Your task to perform on an android device: Show me popular games on the Play Store Image 0: 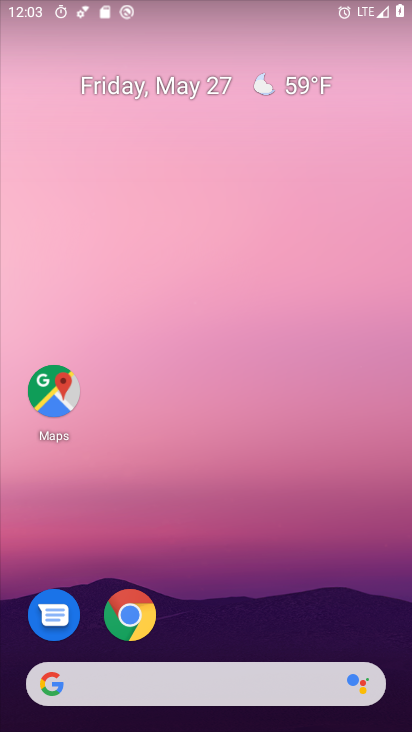
Step 0: drag from (228, 327) to (176, 88)
Your task to perform on an android device: Show me popular games on the Play Store Image 1: 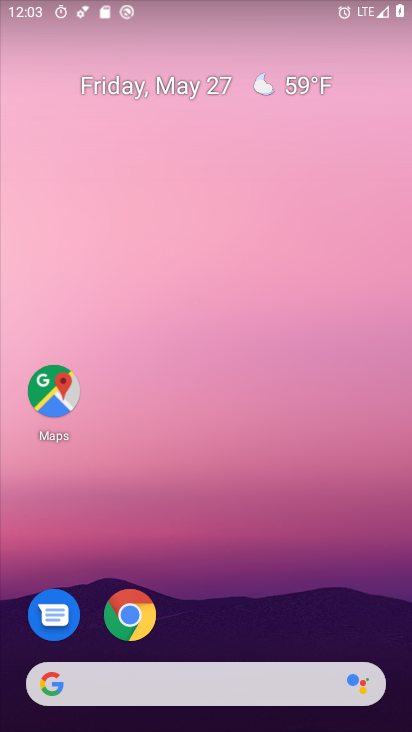
Step 1: drag from (221, 587) to (123, 22)
Your task to perform on an android device: Show me popular games on the Play Store Image 2: 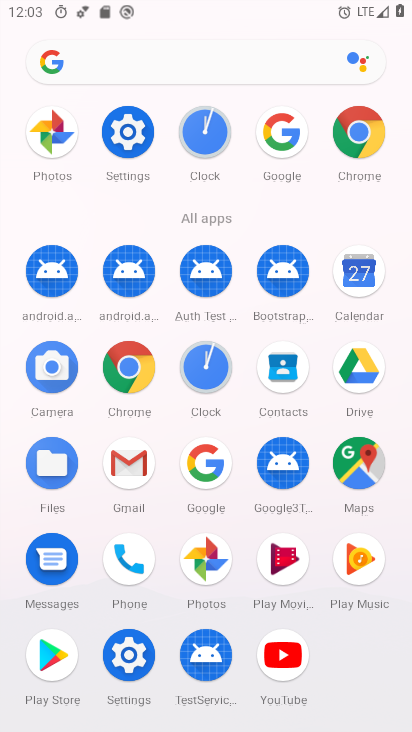
Step 2: click (50, 664)
Your task to perform on an android device: Show me popular games on the Play Store Image 3: 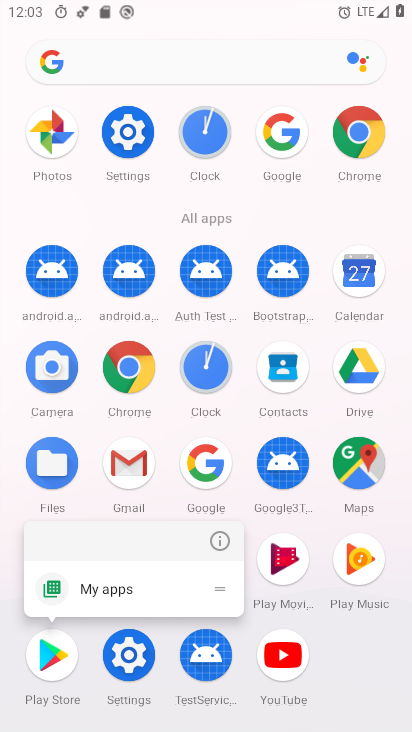
Step 3: click (41, 642)
Your task to perform on an android device: Show me popular games on the Play Store Image 4: 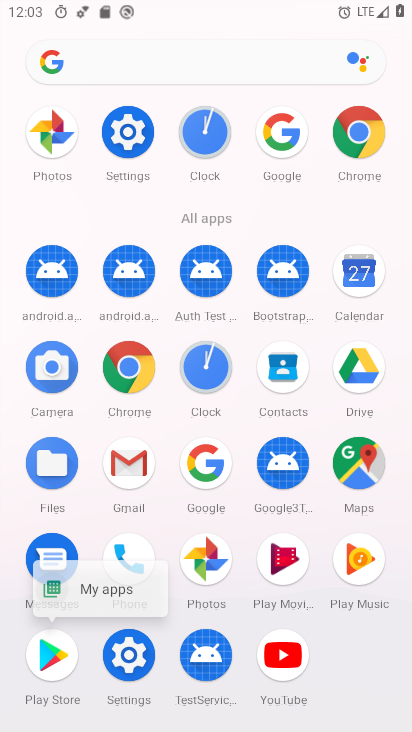
Step 4: click (42, 643)
Your task to perform on an android device: Show me popular games on the Play Store Image 5: 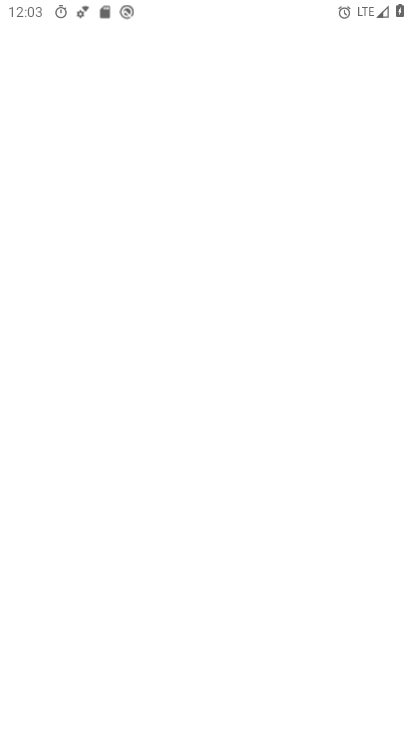
Step 5: click (42, 640)
Your task to perform on an android device: Show me popular games on the Play Store Image 6: 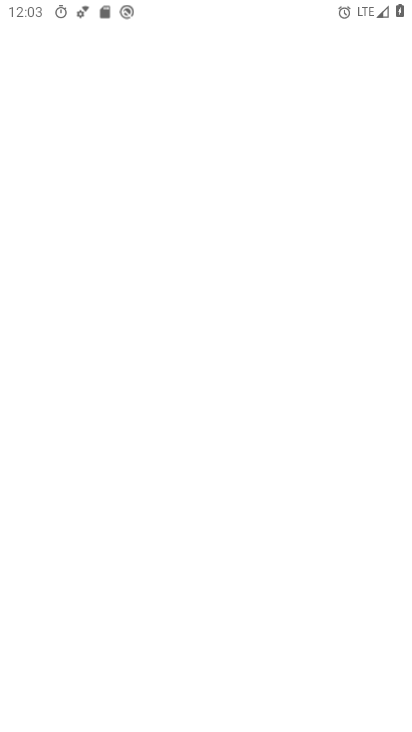
Step 6: click (42, 636)
Your task to perform on an android device: Show me popular games on the Play Store Image 7: 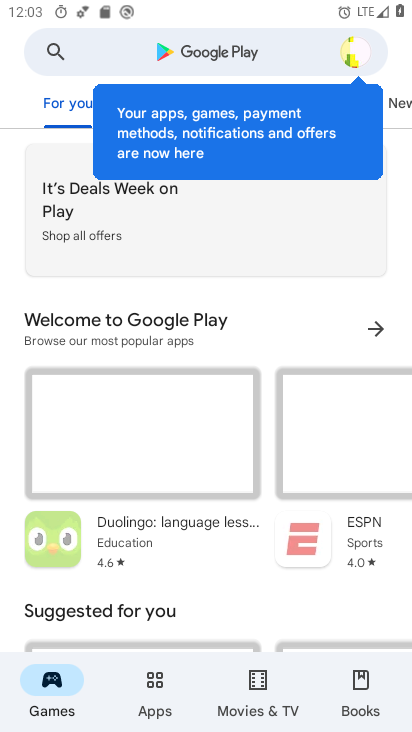
Step 7: click (125, 51)
Your task to perform on an android device: Show me popular games on the Play Store Image 8: 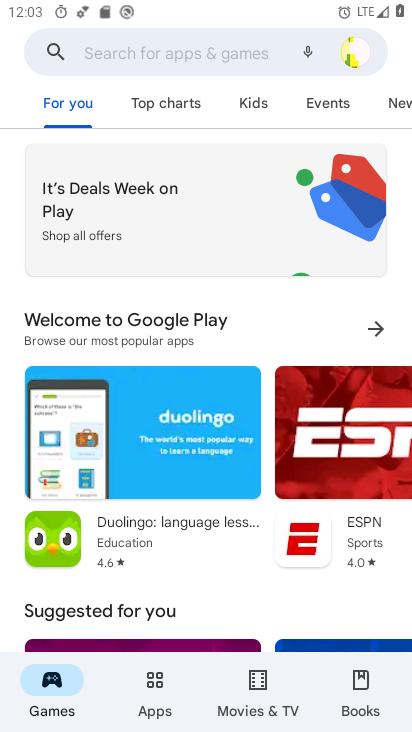
Step 8: click (125, 49)
Your task to perform on an android device: Show me popular games on the Play Store Image 9: 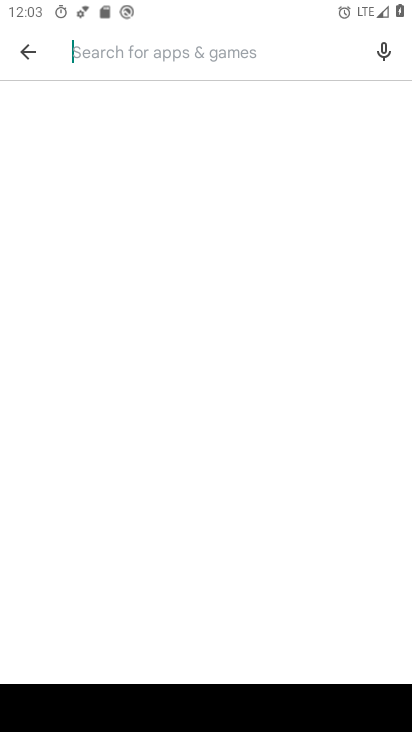
Step 9: type "popular games"
Your task to perform on an android device: Show me popular games on the Play Store Image 10: 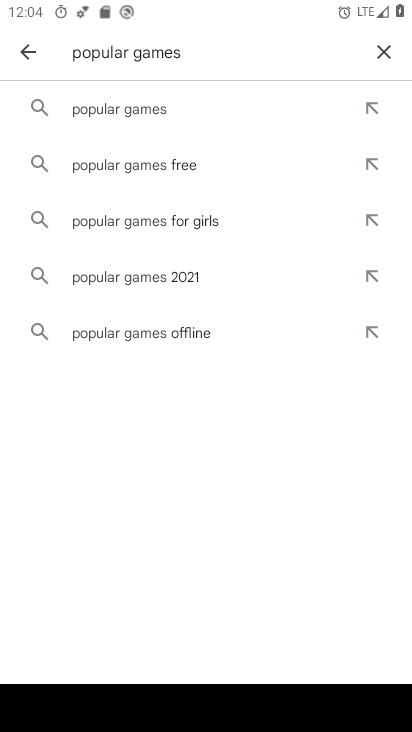
Step 10: click (129, 95)
Your task to perform on an android device: Show me popular games on the Play Store Image 11: 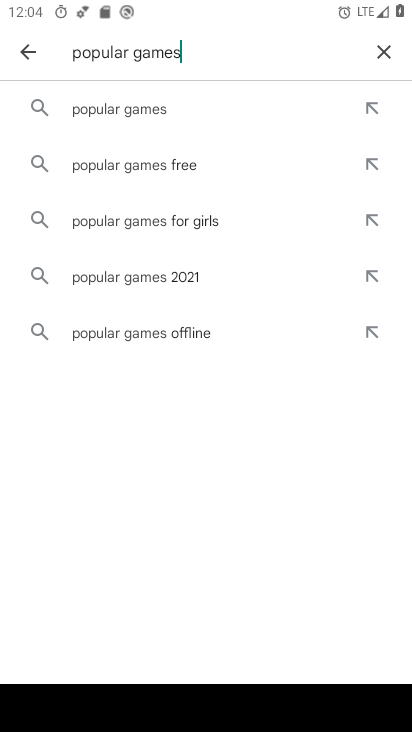
Step 11: click (129, 98)
Your task to perform on an android device: Show me popular games on the Play Store Image 12: 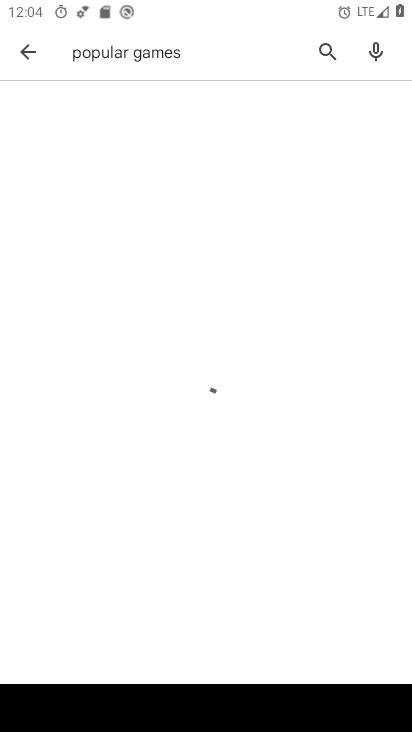
Step 12: click (129, 99)
Your task to perform on an android device: Show me popular games on the Play Store Image 13: 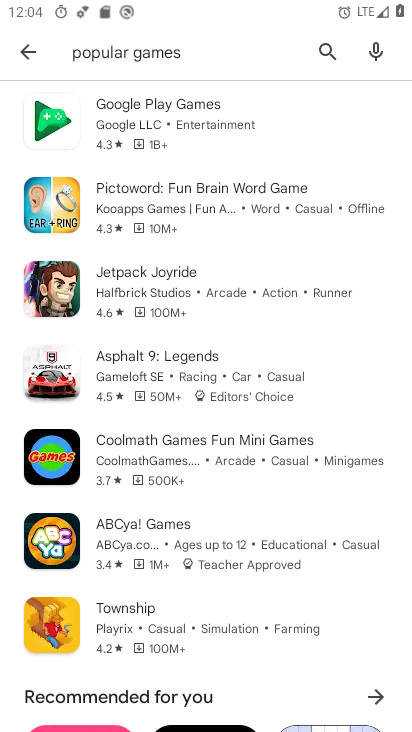
Step 13: drag from (201, 453) to (145, 72)
Your task to perform on an android device: Show me popular games on the Play Store Image 14: 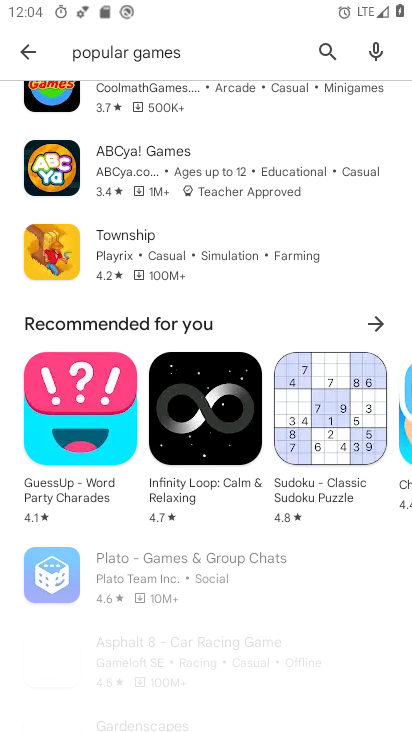
Step 14: drag from (101, 416) to (95, 203)
Your task to perform on an android device: Show me popular games on the Play Store Image 15: 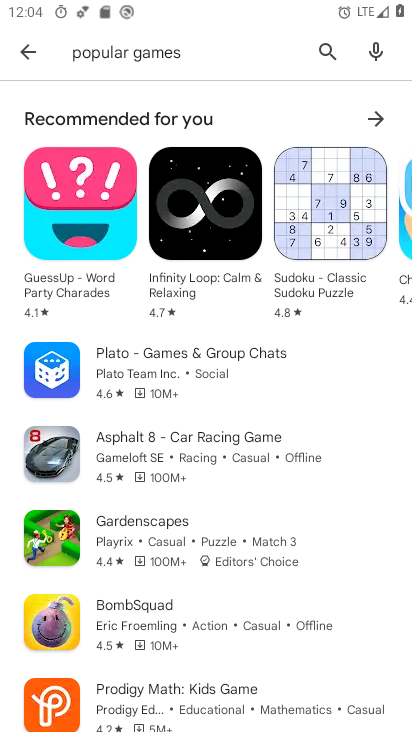
Step 15: drag from (152, 499) to (152, 258)
Your task to perform on an android device: Show me popular games on the Play Store Image 16: 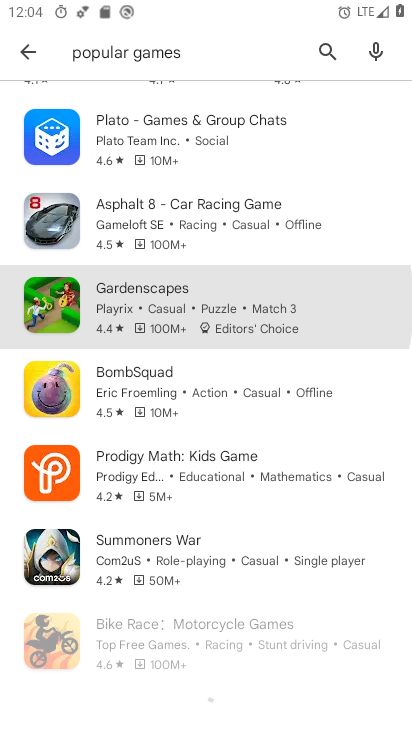
Step 16: drag from (192, 435) to (192, 215)
Your task to perform on an android device: Show me popular games on the Play Store Image 17: 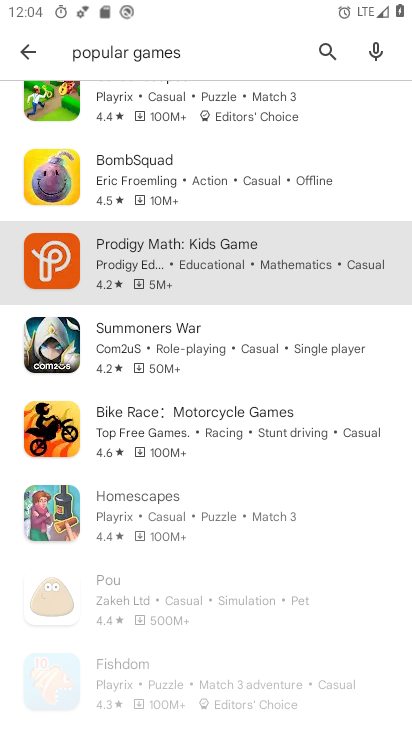
Step 17: drag from (229, 487) to (229, 267)
Your task to perform on an android device: Show me popular games on the Play Store Image 18: 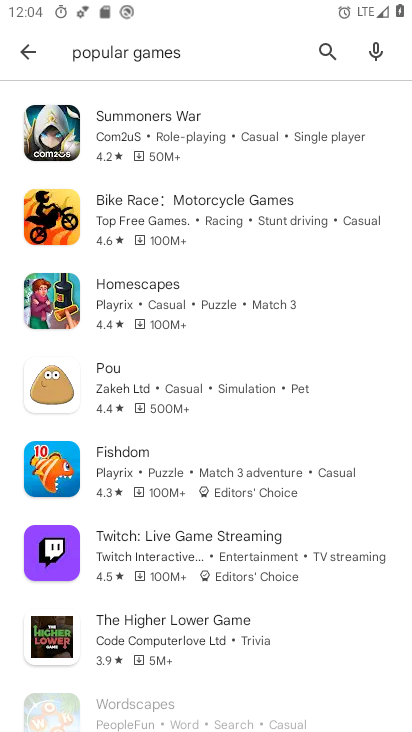
Step 18: drag from (187, 358) to (164, 131)
Your task to perform on an android device: Show me popular games on the Play Store Image 19: 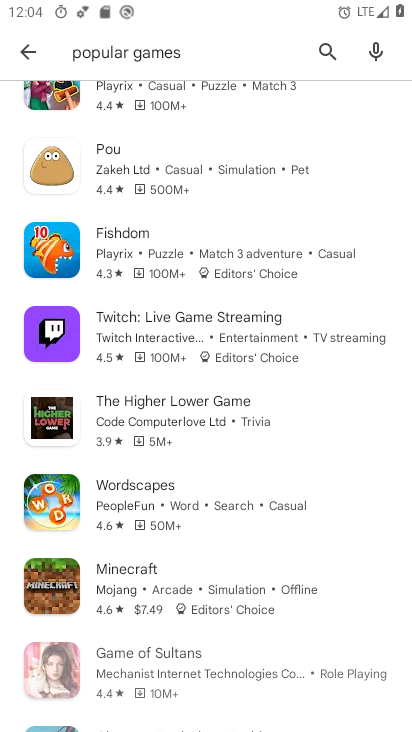
Step 19: drag from (227, 219) to (209, 20)
Your task to perform on an android device: Show me popular games on the Play Store Image 20: 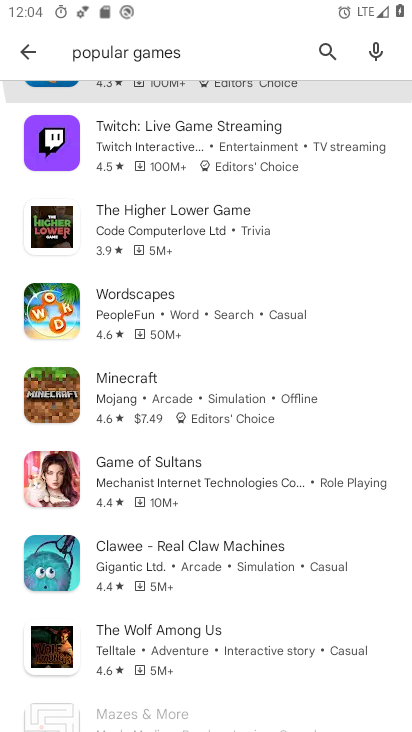
Step 20: drag from (254, 200) to (254, 56)
Your task to perform on an android device: Show me popular games on the Play Store Image 21: 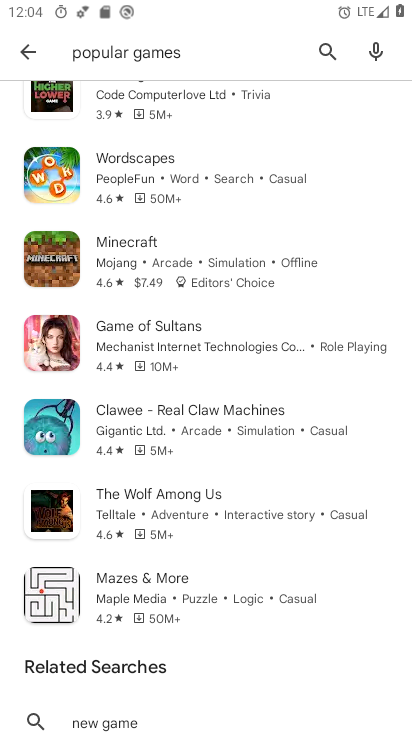
Step 21: click (197, 105)
Your task to perform on an android device: Show me popular games on the Play Store Image 22: 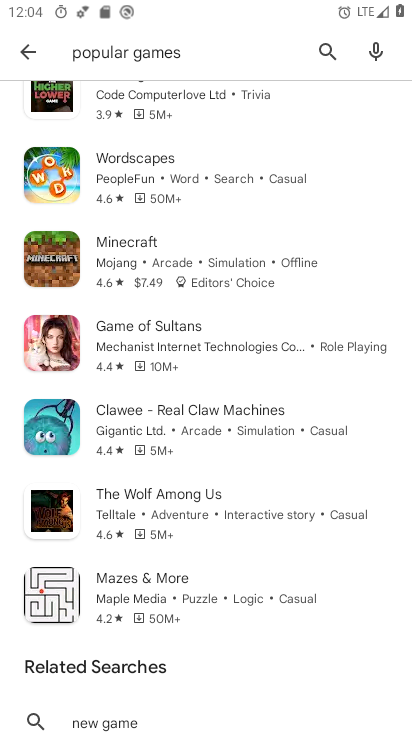
Step 22: click (234, 134)
Your task to perform on an android device: Show me popular games on the Play Store Image 23: 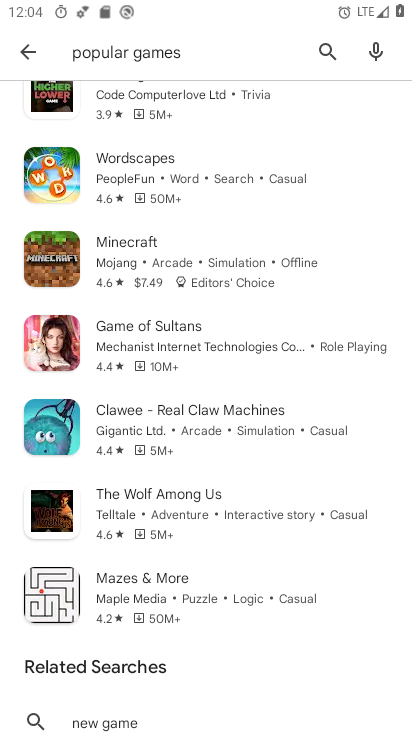
Step 23: click (306, 220)
Your task to perform on an android device: Show me popular games on the Play Store Image 24: 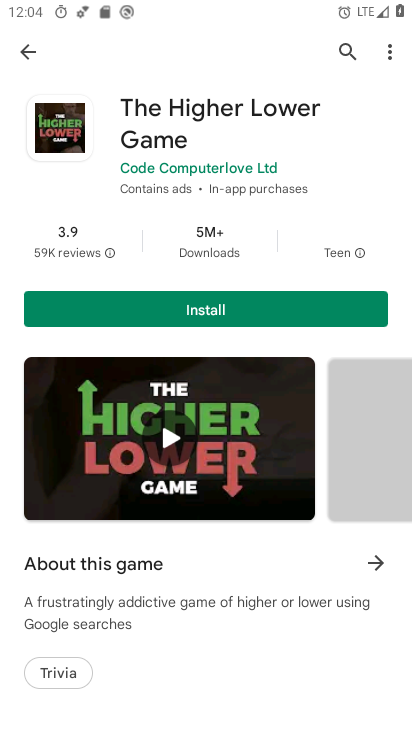
Step 24: task complete